Your task to perform on an android device: Is it going to rain today? Image 0: 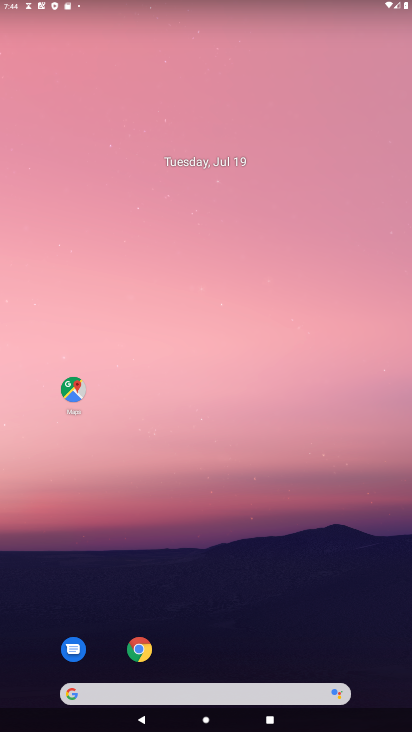
Step 0: drag from (193, 695) to (382, 0)
Your task to perform on an android device: Is it going to rain today? Image 1: 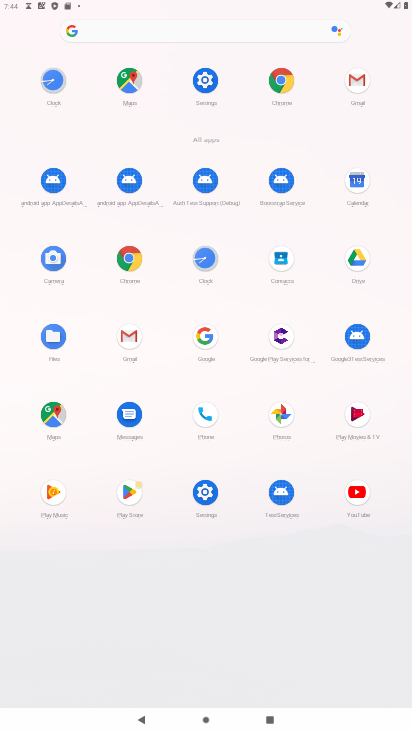
Step 1: click (204, 335)
Your task to perform on an android device: Is it going to rain today? Image 2: 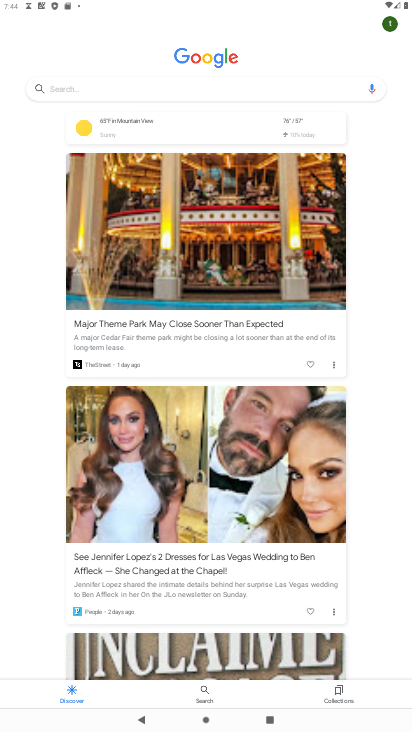
Step 2: click (253, 131)
Your task to perform on an android device: Is it going to rain today? Image 3: 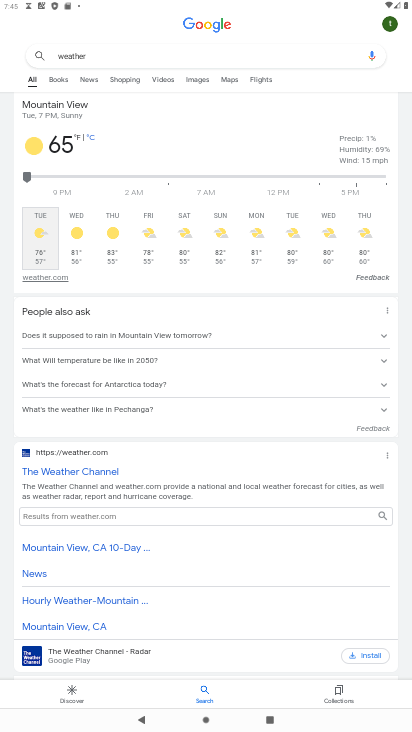
Step 3: task complete